Your task to perform on an android device: Do I have any events this weekend? Image 0: 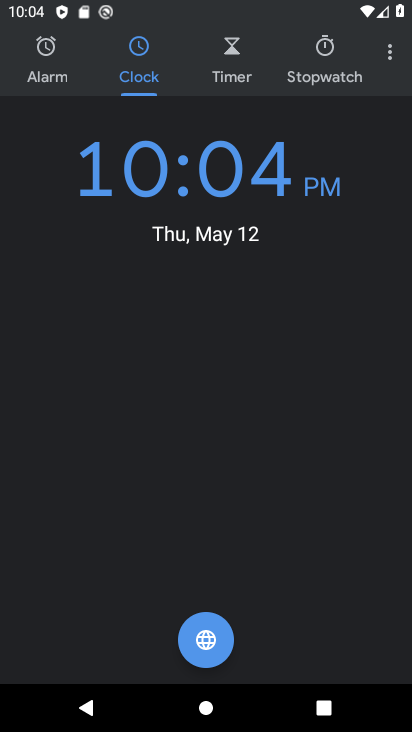
Step 0: press home button
Your task to perform on an android device: Do I have any events this weekend? Image 1: 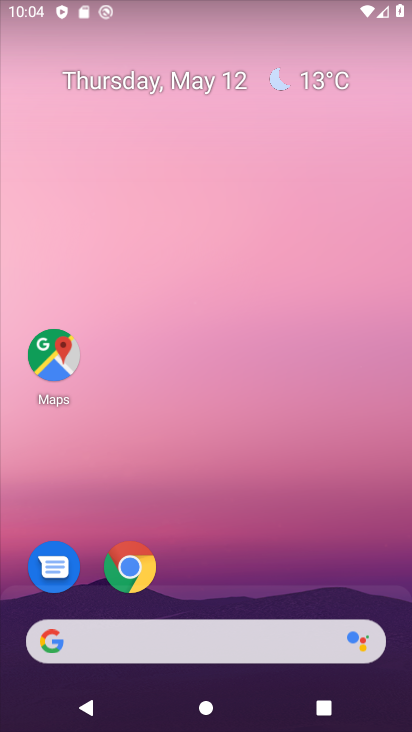
Step 1: drag from (237, 509) to (290, 169)
Your task to perform on an android device: Do I have any events this weekend? Image 2: 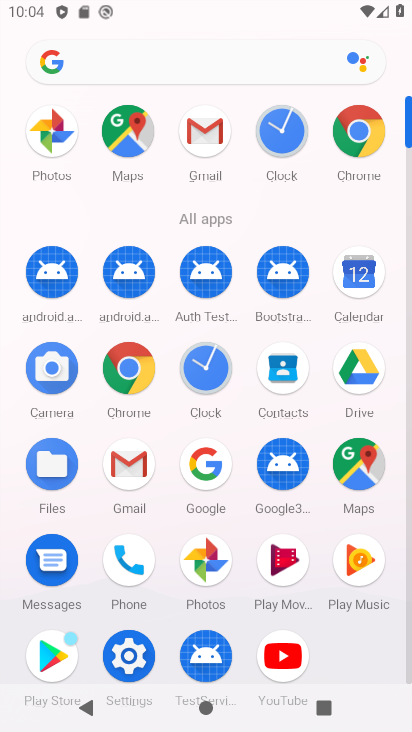
Step 2: click (350, 282)
Your task to perform on an android device: Do I have any events this weekend? Image 3: 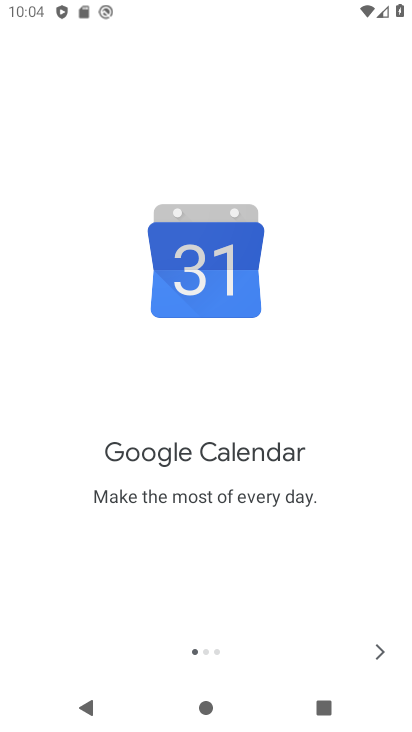
Step 3: click (378, 665)
Your task to perform on an android device: Do I have any events this weekend? Image 4: 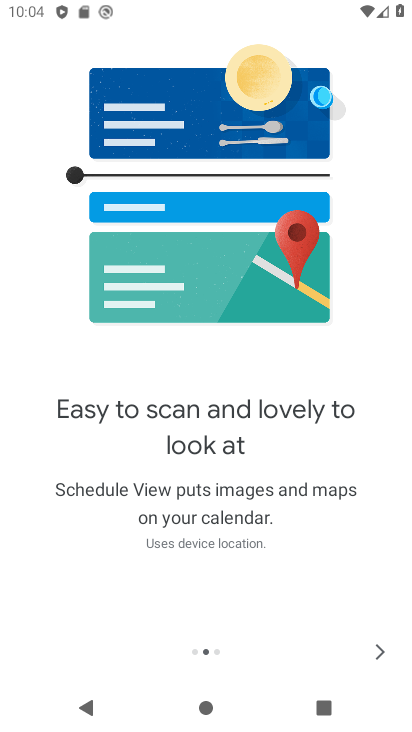
Step 4: click (376, 659)
Your task to perform on an android device: Do I have any events this weekend? Image 5: 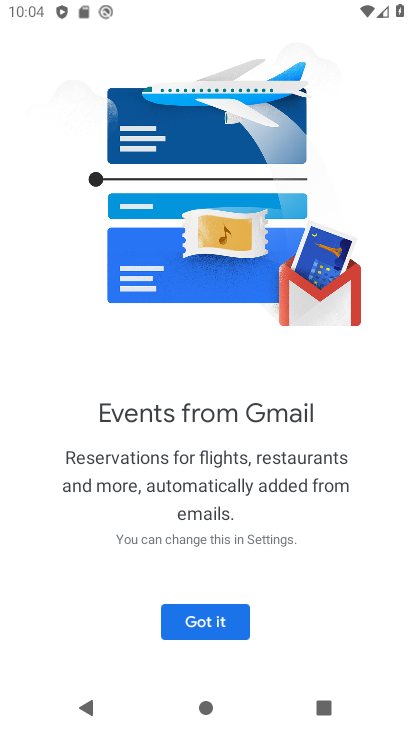
Step 5: click (193, 619)
Your task to perform on an android device: Do I have any events this weekend? Image 6: 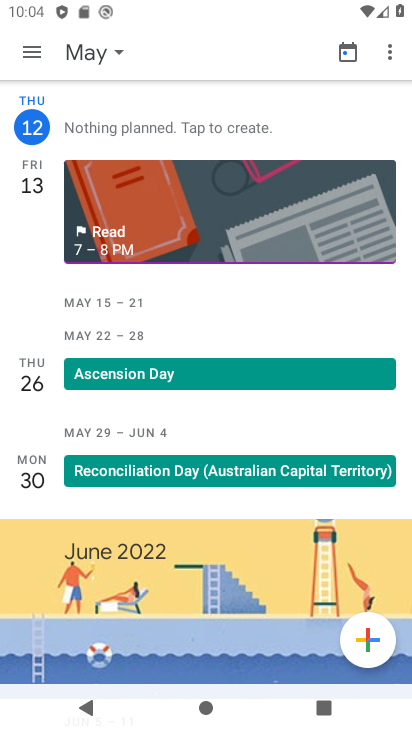
Step 6: click (95, 50)
Your task to perform on an android device: Do I have any events this weekend? Image 7: 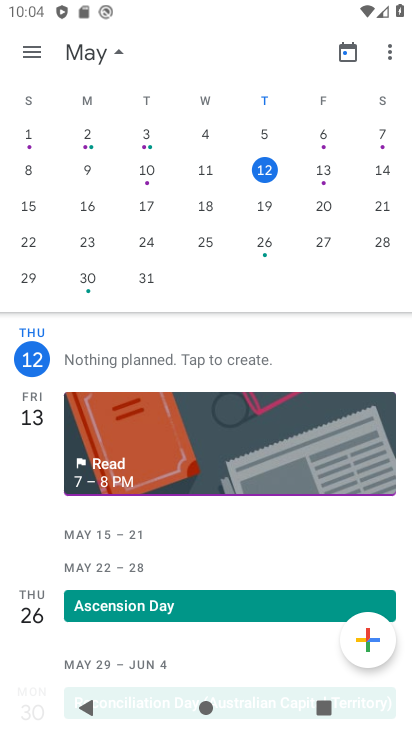
Step 7: click (327, 175)
Your task to perform on an android device: Do I have any events this weekend? Image 8: 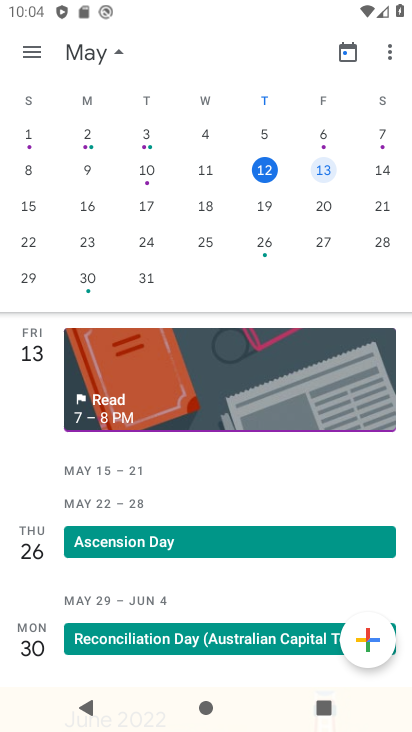
Step 8: click (387, 173)
Your task to perform on an android device: Do I have any events this weekend? Image 9: 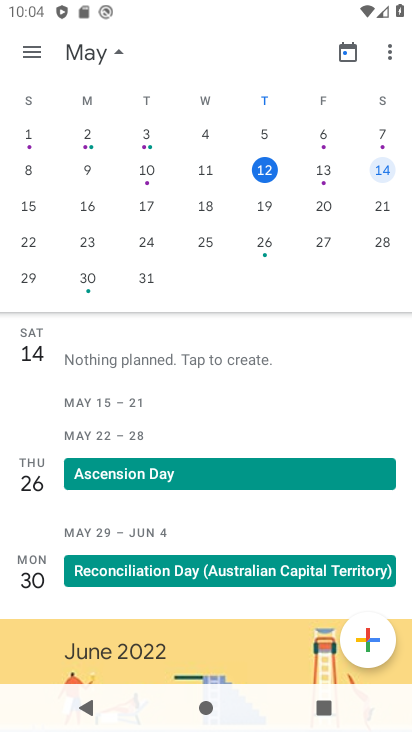
Step 9: task complete